Your task to perform on an android device: show emergency info Image 0: 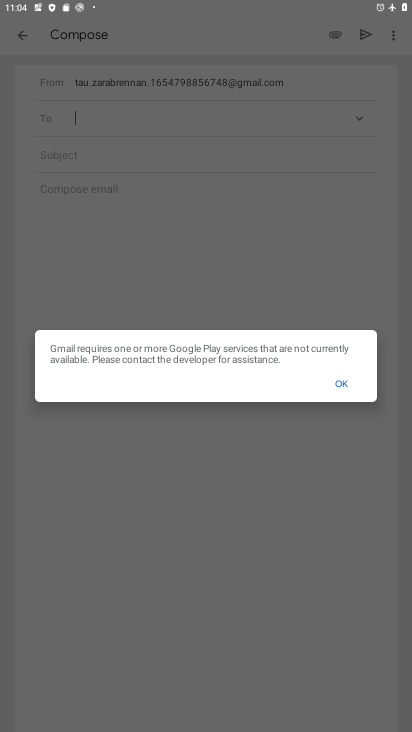
Step 0: task complete